Your task to perform on an android device: Show me popular games on the Play Store Image 0: 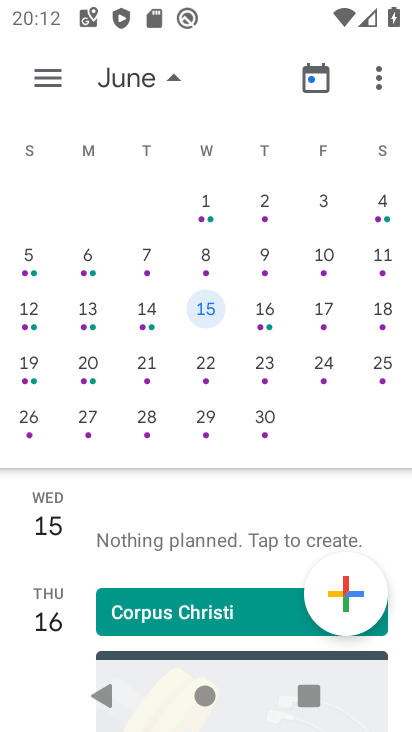
Step 0: press home button
Your task to perform on an android device: Show me popular games on the Play Store Image 1: 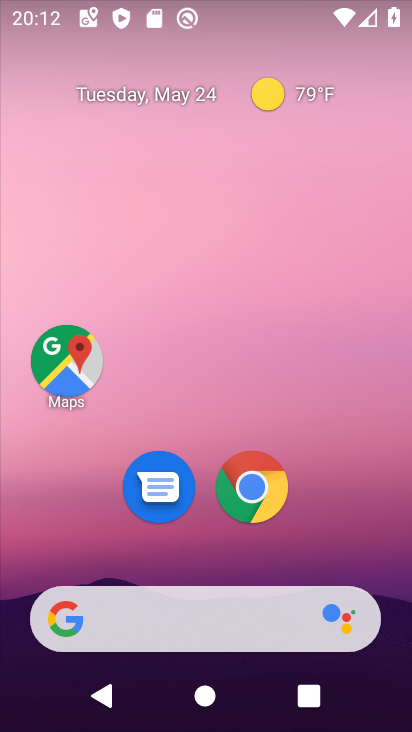
Step 1: drag from (37, 555) to (243, 147)
Your task to perform on an android device: Show me popular games on the Play Store Image 2: 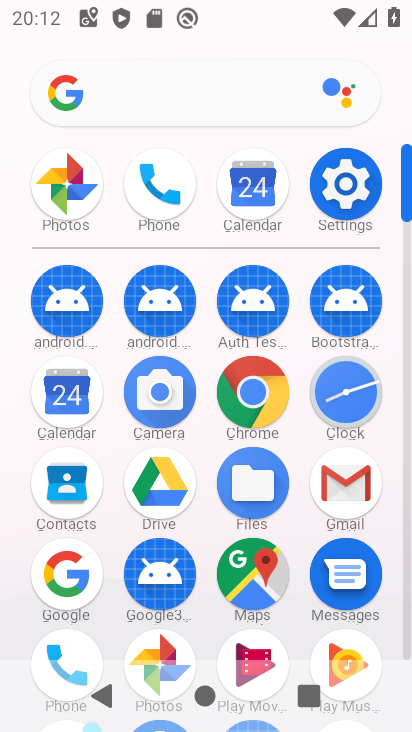
Step 2: drag from (13, 658) to (210, 227)
Your task to perform on an android device: Show me popular games on the Play Store Image 3: 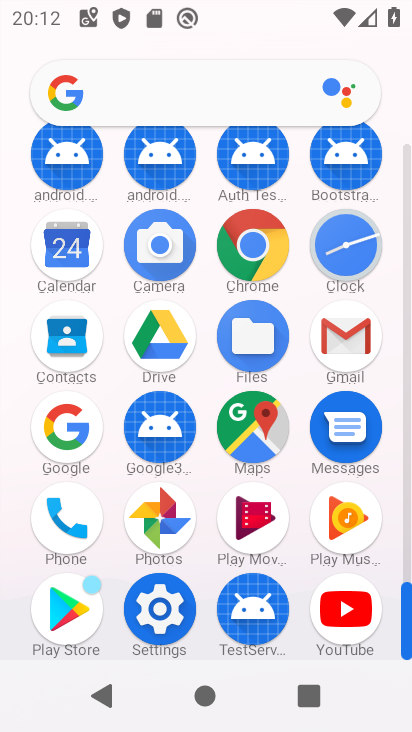
Step 3: click (51, 602)
Your task to perform on an android device: Show me popular games on the Play Store Image 4: 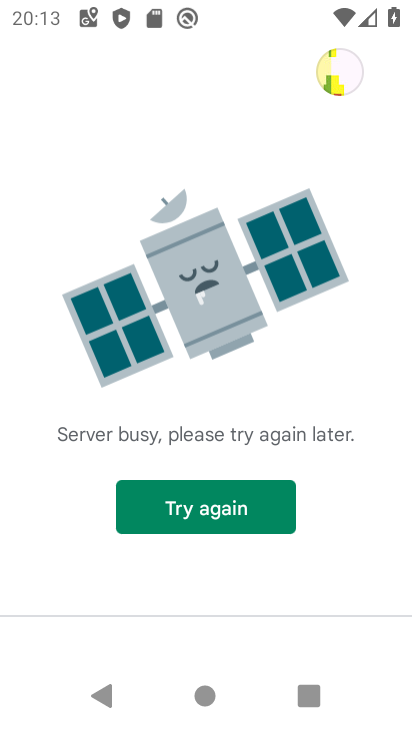
Step 4: task complete